Your task to perform on an android device: Go to CNN.com Image 0: 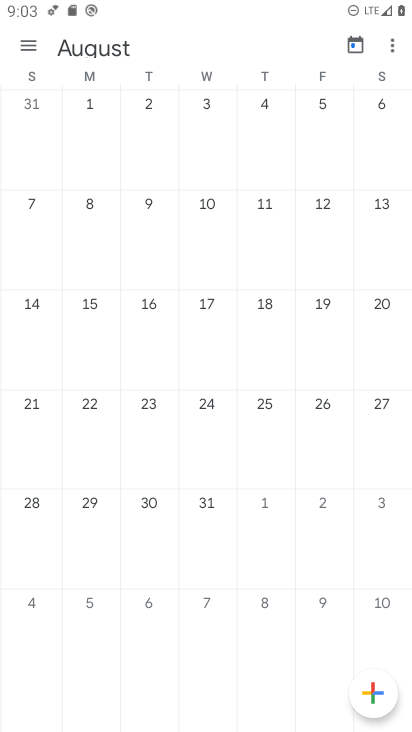
Step 0: press home button
Your task to perform on an android device: Go to CNN.com Image 1: 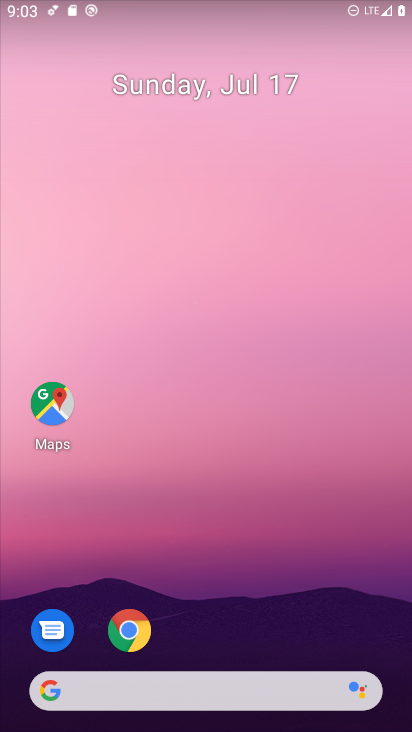
Step 1: click (124, 630)
Your task to perform on an android device: Go to CNN.com Image 2: 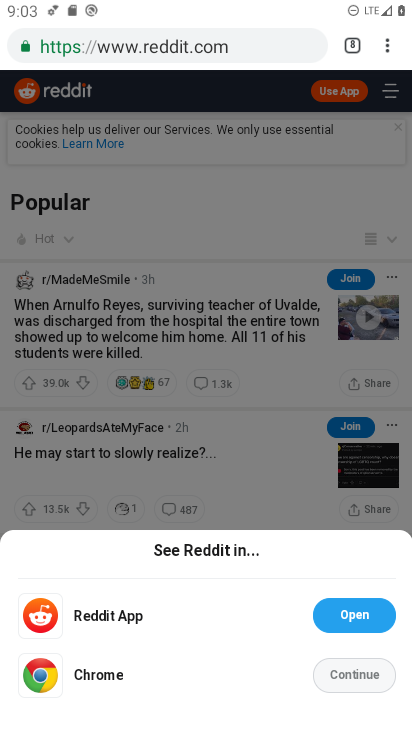
Step 2: click (388, 37)
Your task to perform on an android device: Go to CNN.com Image 3: 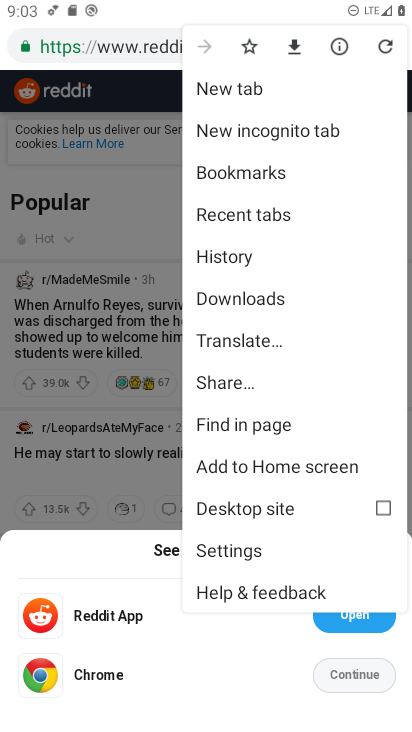
Step 3: click (262, 86)
Your task to perform on an android device: Go to CNN.com Image 4: 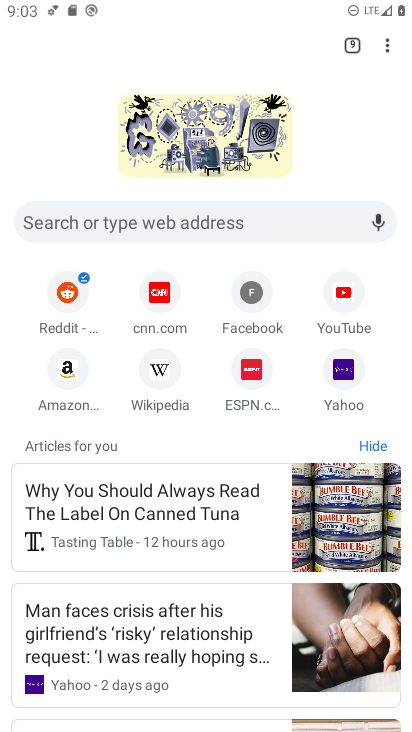
Step 4: click (156, 282)
Your task to perform on an android device: Go to CNN.com Image 5: 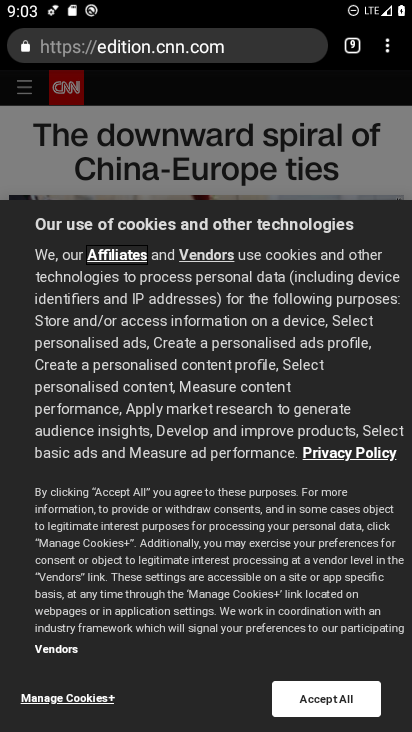
Step 5: task complete